Your task to perform on an android device: change notification settings in the gmail app Image 0: 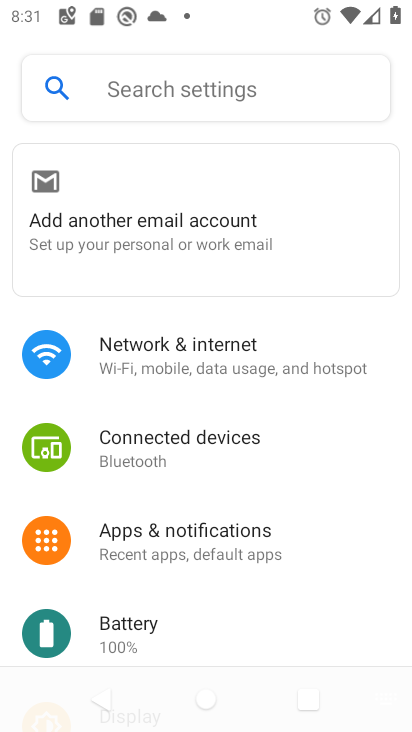
Step 0: press home button
Your task to perform on an android device: change notification settings in the gmail app Image 1: 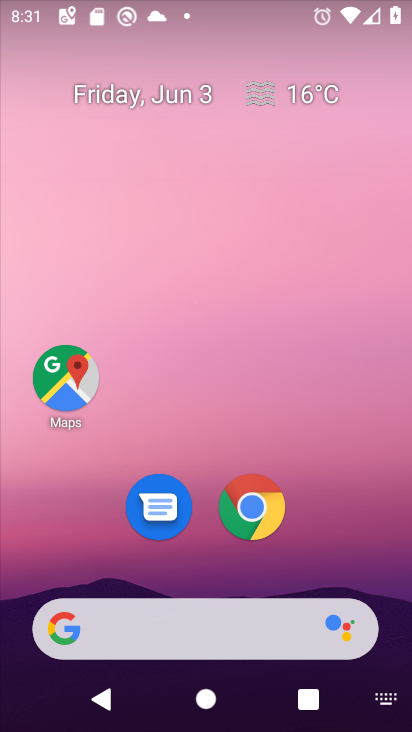
Step 1: drag from (365, 514) to (246, 44)
Your task to perform on an android device: change notification settings in the gmail app Image 2: 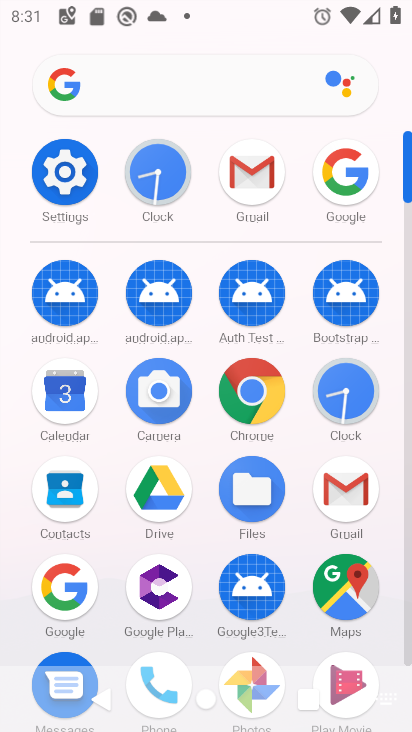
Step 2: click (350, 481)
Your task to perform on an android device: change notification settings in the gmail app Image 3: 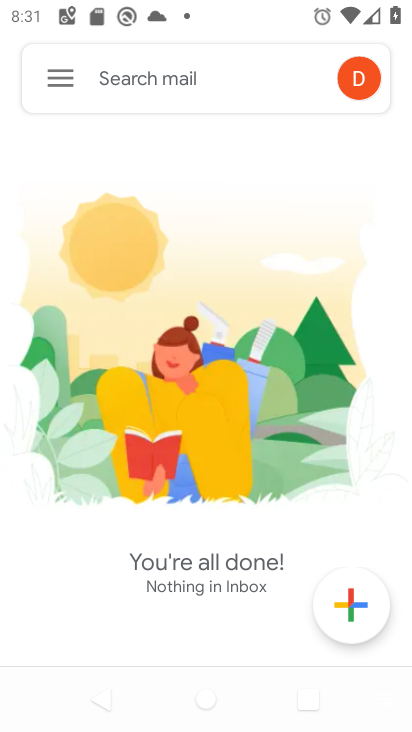
Step 3: click (66, 83)
Your task to perform on an android device: change notification settings in the gmail app Image 4: 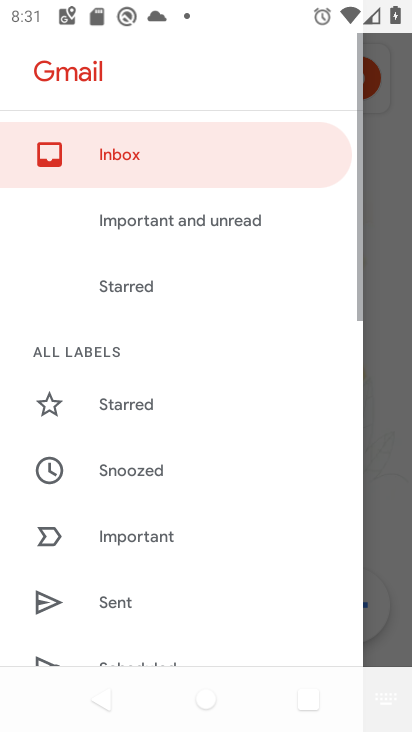
Step 4: drag from (270, 589) to (217, 2)
Your task to perform on an android device: change notification settings in the gmail app Image 5: 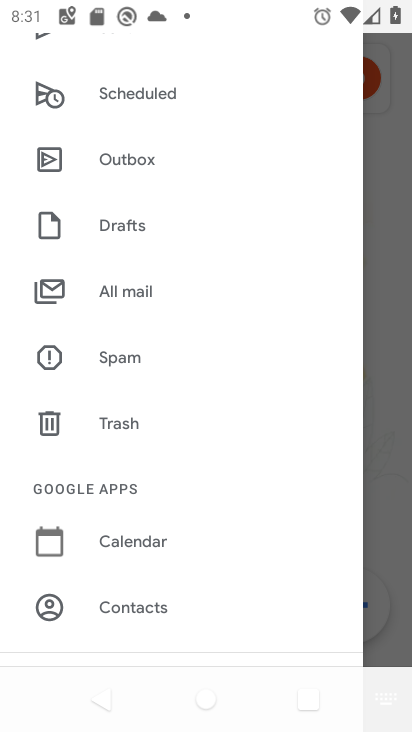
Step 5: drag from (213, 568) to (200, 21)
Your task to perform on an android device: change notification settings in the gmail app Image 6: 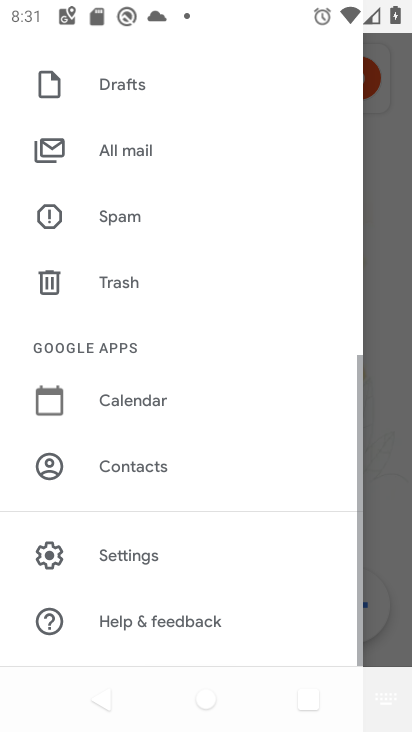
Step 6: click (153, 549)
Your task to perform on an android device: change notification settings in the gmail app Image 7: 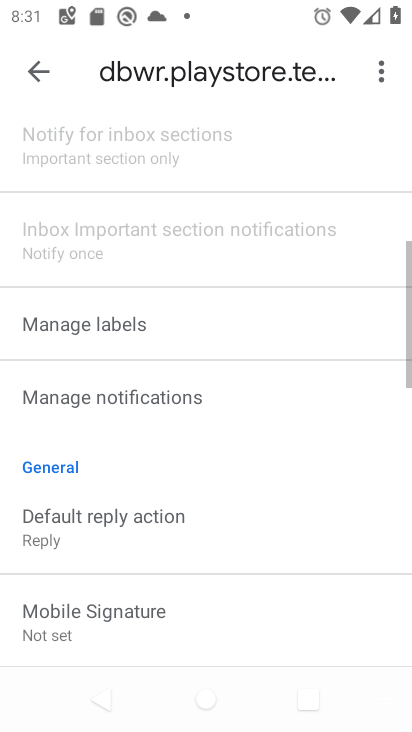
Step 7: click (189, 404)
Your task to perform on an android device: change notification settings in the gmail app Image 8: 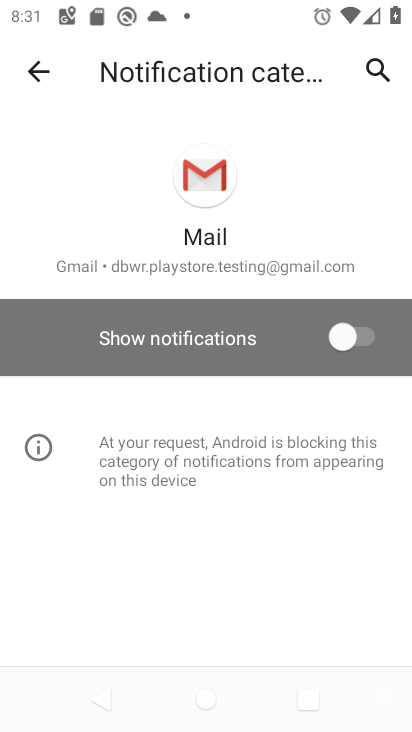
Step 8: click (352, 339)
Your task to perform on an android device: change notification settings in the gmail app Image 9: 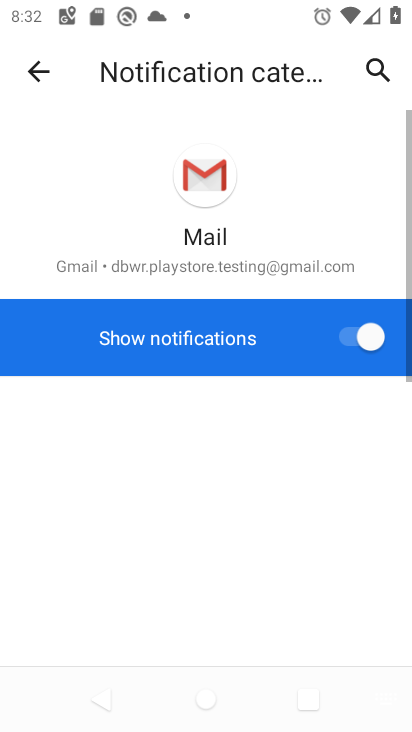
Step 9: task complete